Your task to perform on an android device: turn smart compose on in the gmail app Image 0: 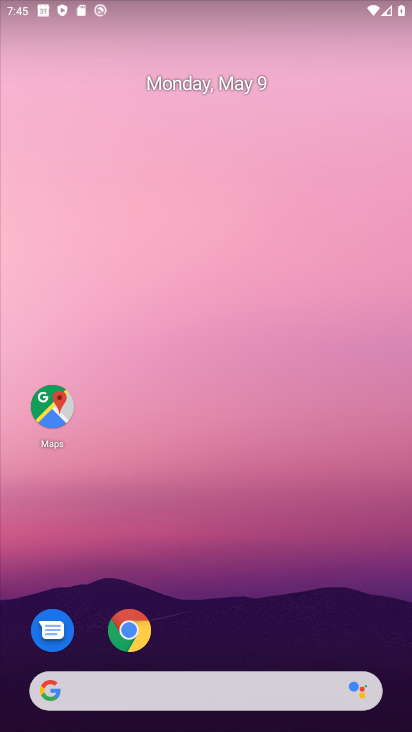
Step 0: drag from (310, 563) to (304, 224)
Your task to perform on an android device: turn smart compose on in the gmail app Image 1: 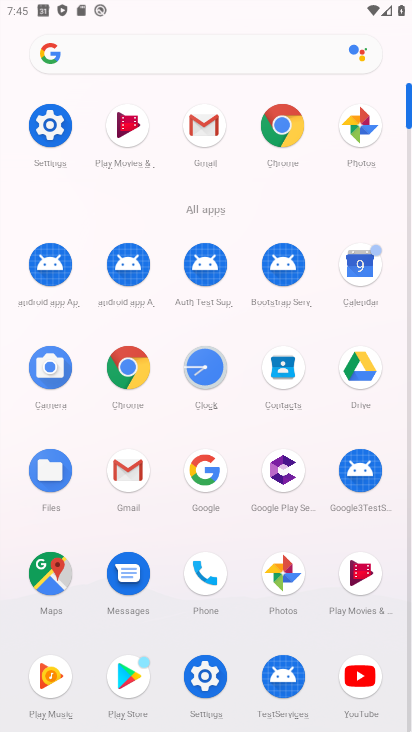
Step 1: click (108, 472)
Your task to perform on an android device: turn smart compose on in the gmail app Image 2: 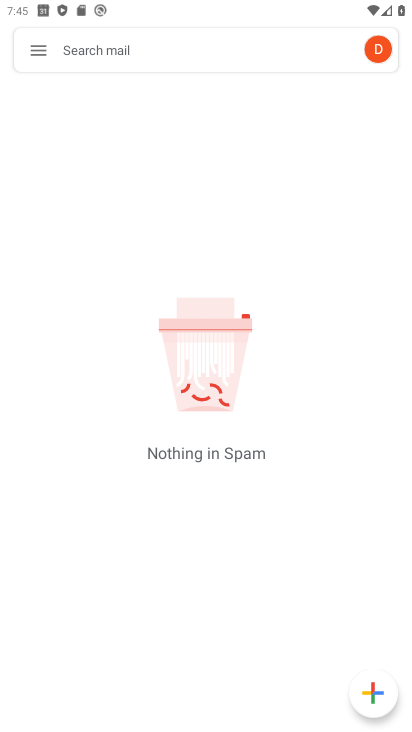
Step 2: click (41, 52)
Your task to perform on an android device: turn smart compose on in the gmail app Image 3: 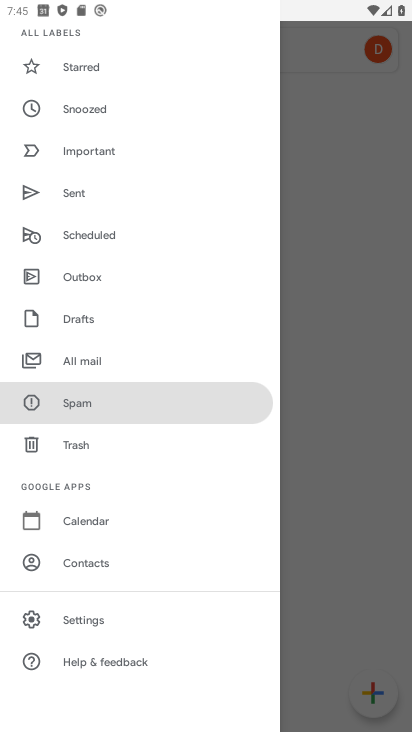
Step 3: click (110, 623)
Your task to perform on an android device: turn smart compose on in the gmail app Image 4: 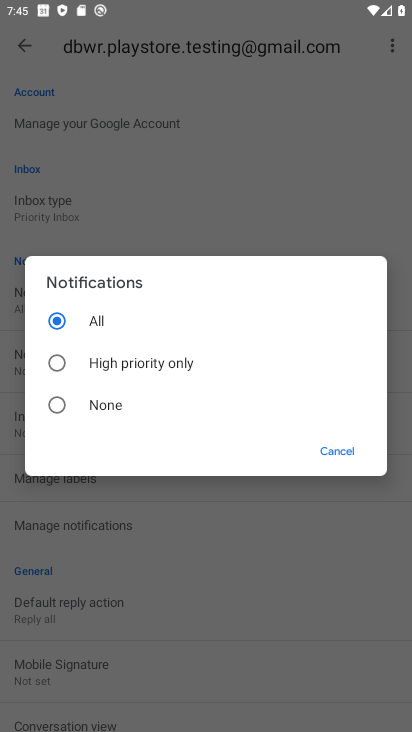
Step 4: click (335, 453)
Your task to perform on an android device: turn smart compose on in the gmail app Image 5: 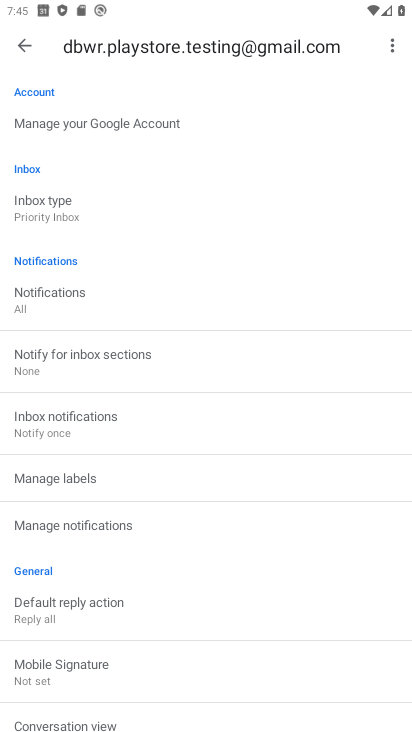
Step 5: task complete